Your task to perform on an android device: turn on the 12-hour format for clock Image 0: 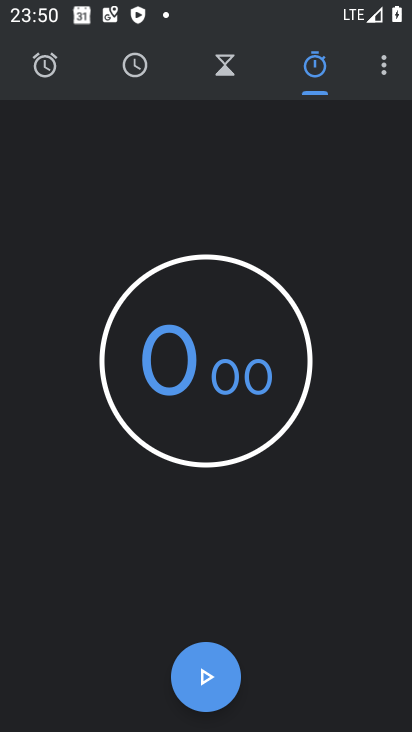
Step 0: click (364, 59)
Your task to perform on an android device: turn on the 12-hour format for clock Image 1: 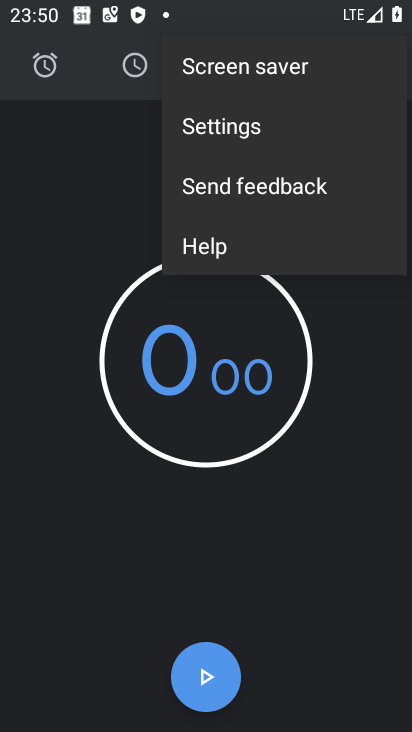
Step 1: click (326, 124)
Your task to perform on an android device: turn on the 12-hour format for clock Image 2: 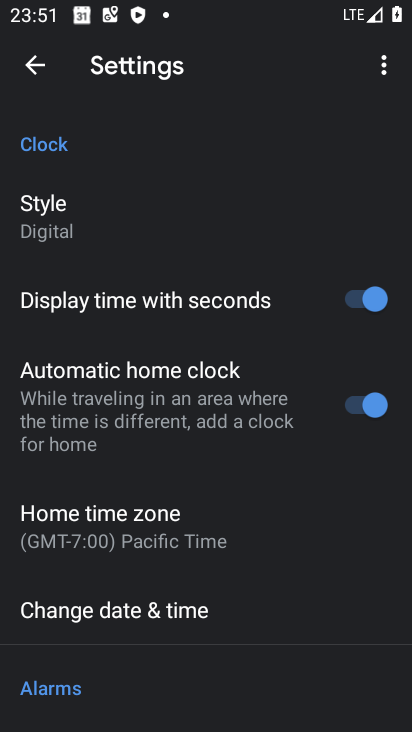
Step 2: task complete